Your task to perform on an android device: Go to Wikipedia Image 0: 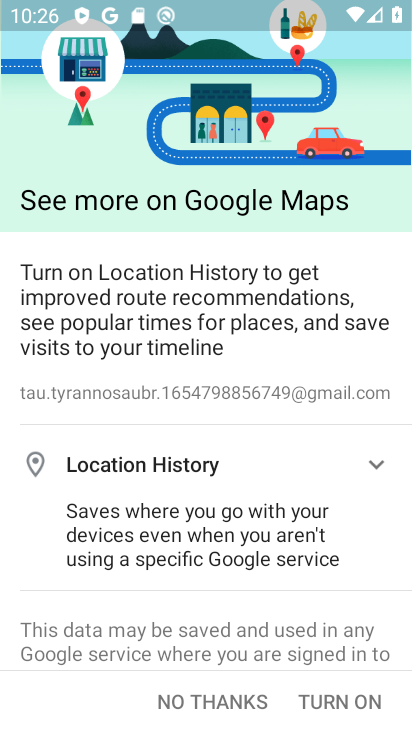
Step 0: press home button
Your task to perform on an android device: Go to Wikipedia Image 1: 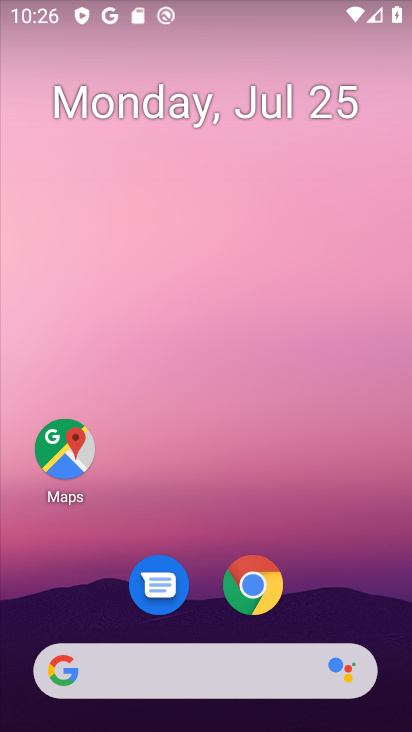
Step 1: click (256, 567)
Your task to perform on an android device: Go to Wikipedia Image 2: 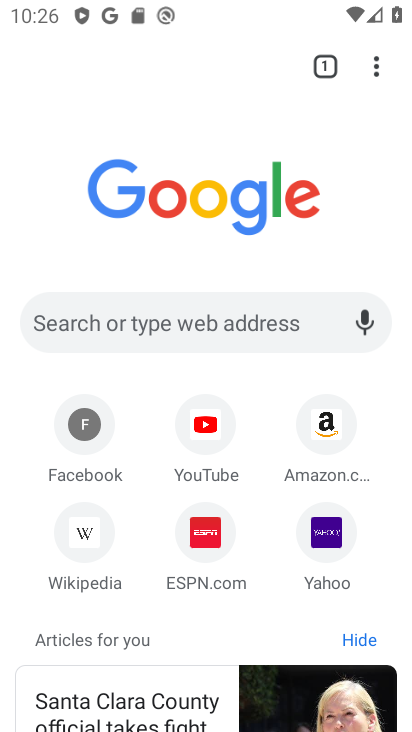
Step 2: click (92, 531)
Your task to perform on an android device: Go to Wikipedia Image 3: 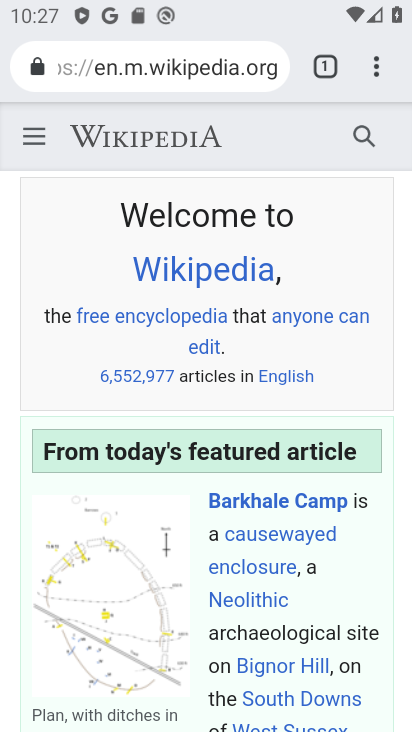
Step 3: task complete